Your task to perform on an android device: move an email to a new category in the gmail app Image 0: 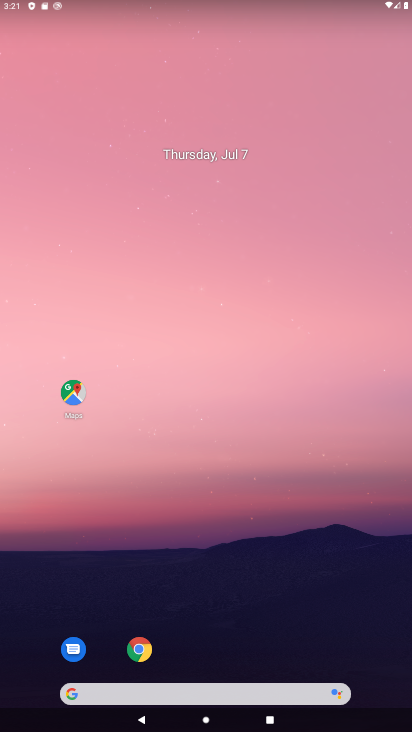
Step 0: drag from (195, 644) to (335, 93)
Your task to perform on an android device: move an email to a new category in the gmail app Image 1: 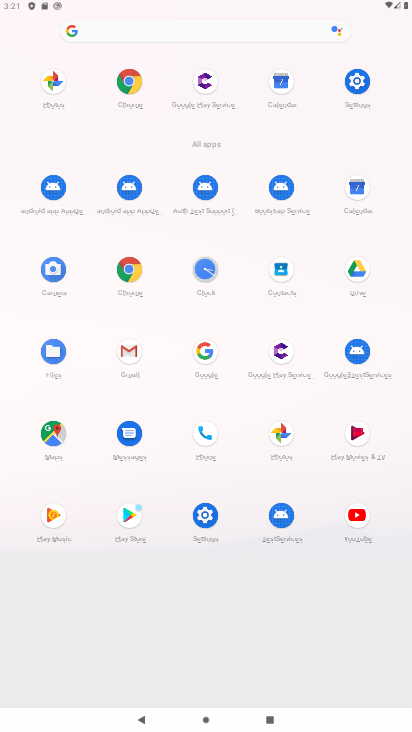
Step 1: click (132, 347)
Your task to perform on an android device: move an email to a new category in the gmail app Image 2: 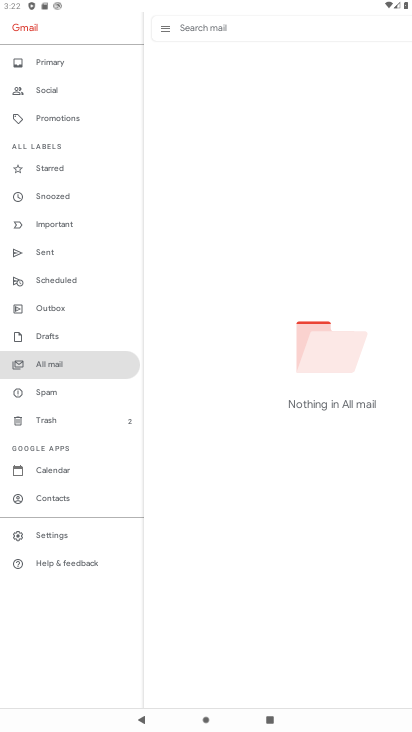
Step 2: click (48, 369)
Your task to perform on an android device: move an email to a new category in the gmail app Image 3: 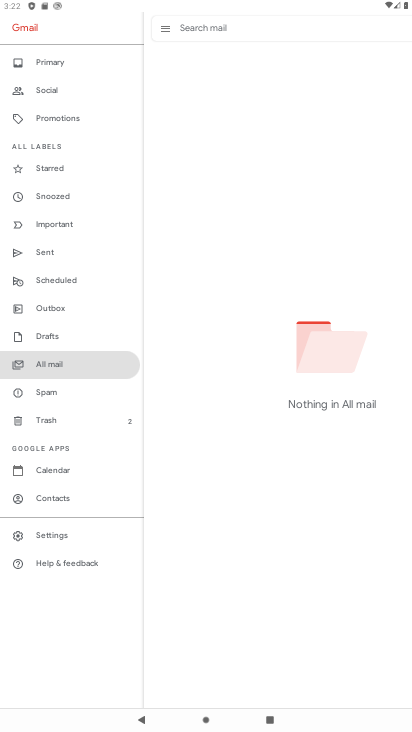
Step 3: click (193, 266)
Your task to perform on an android device: move an email to a new category in the gmail app Image 4: 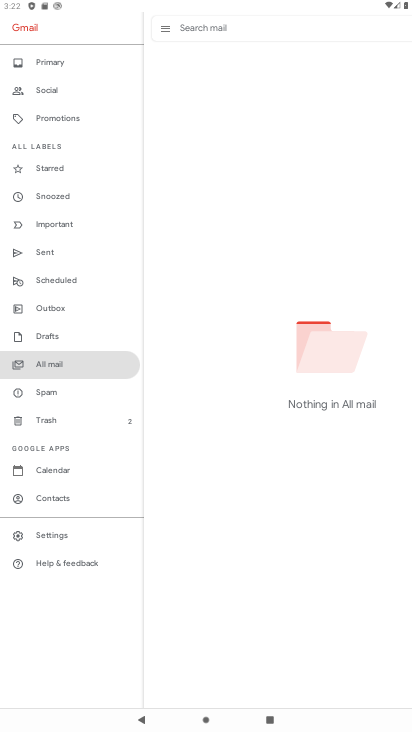
Step 4: click (193, 266)
Your task to perform on an android device: move an email to a new category in the gmail app Image 5: 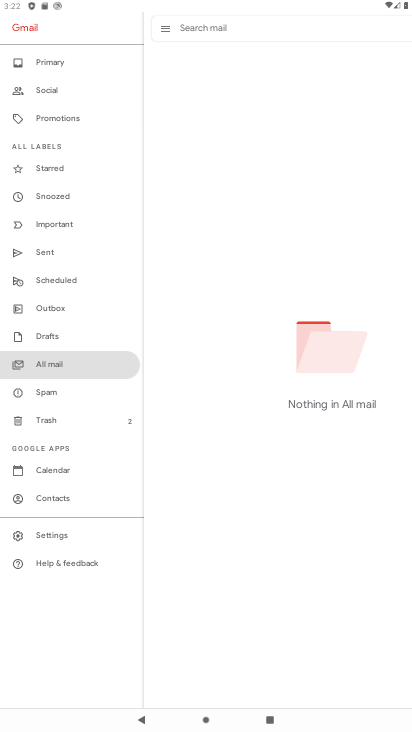
Step 5: click (219, 224)
Your task to perform on an android device: move an email to a new category in the gmail app Image 6: 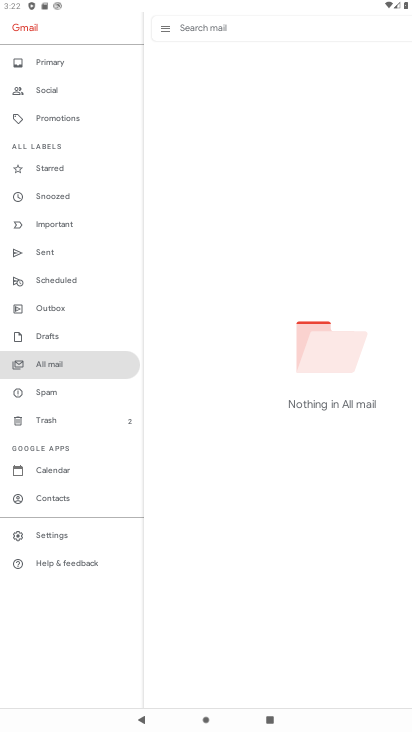
Step 6: task complete